Your task to perform on an android device: Show me the alarms in the clock app Image 0: 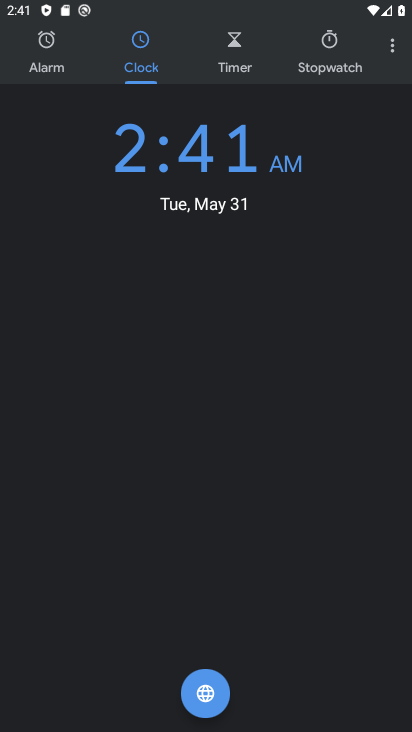
Step 0: click (38, 58)
Your task to perform on an android device: Show me the alarms in the clock app Image 1: 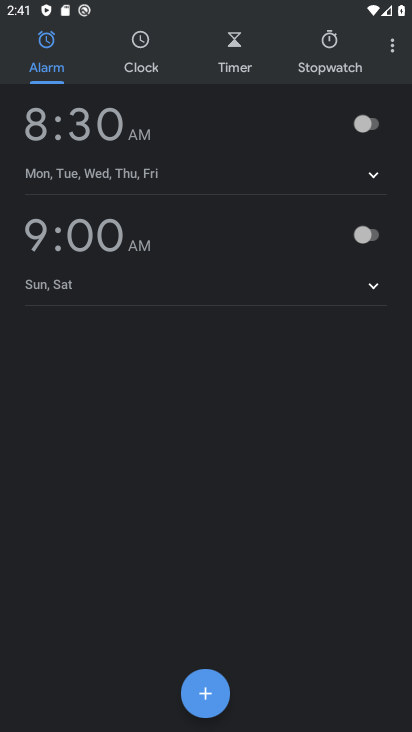
Step 1: task complete